Your task to perform on an android device: Open Youtube and go to the subscriptions tab Image 0: 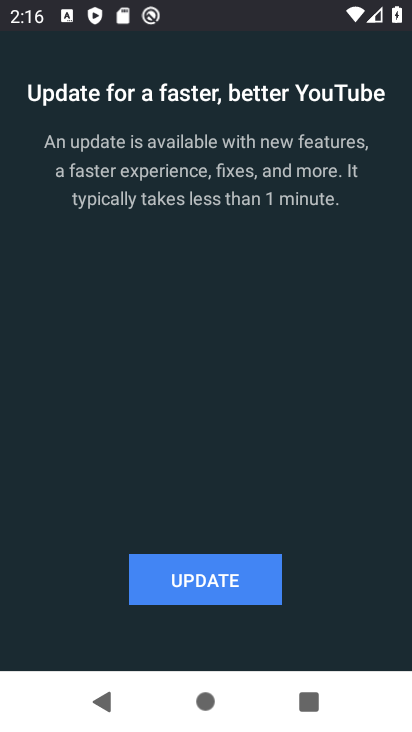
Step 0: press home button
Your task to perform on an android device: Open Youtube and go to the subscriptions tab Image 1: 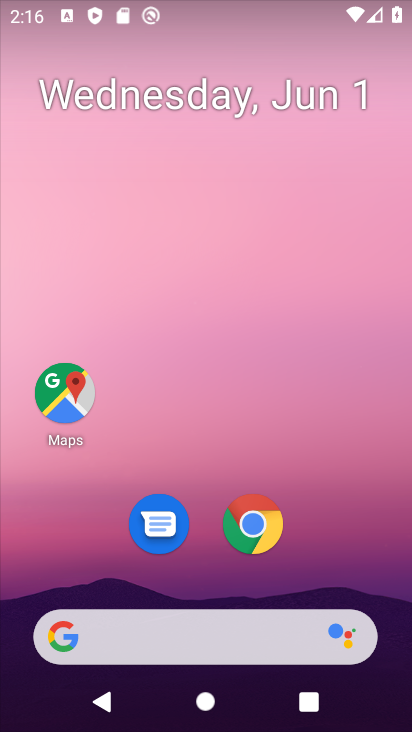
Step 1: drag from (341, 540) to (291, 76)
Your task to perform on an android device: Open Youtube and go to the subscriptions tab Image 2: 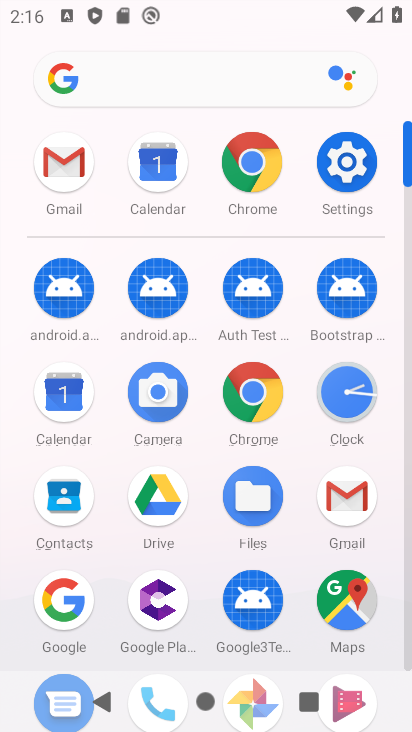
Step 2: drag from (199, 423) to (186, 92)
Your task to perform on an android device: Open Youtube and go to the subscriptions tab Image 3: 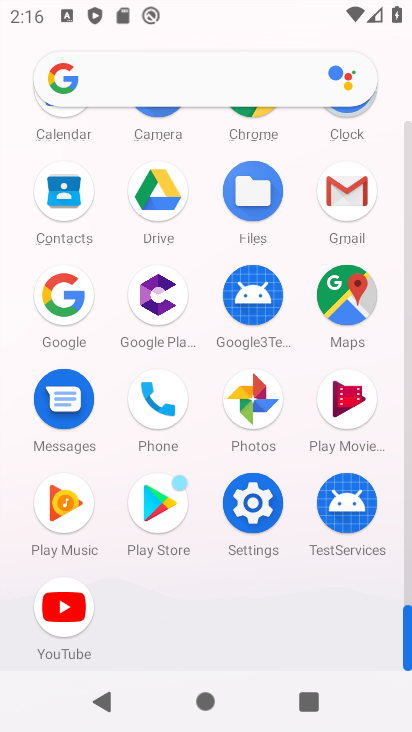
Step 3: click (64, 597)
Your task to perform on an android device: Open Youtube and go to the subscriptions tab Image 4: 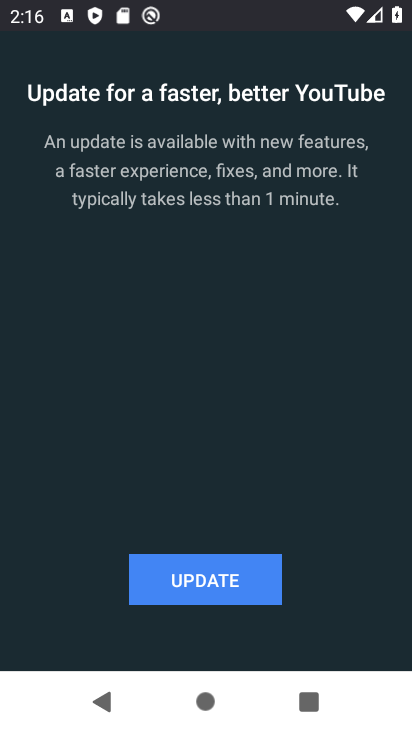
Step 4: click (156, 579)
Your task to perform on an android device: Open Youtube and go to the subscriptions tab Image 5: 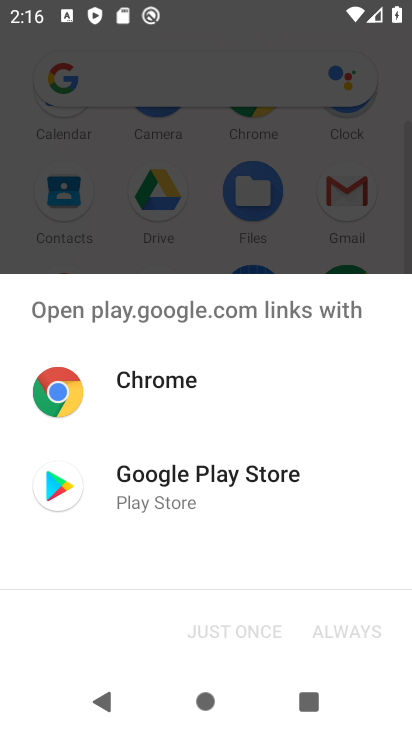
Step 5: click (163, 496)
Your task to perform on an android device: Open Youtube and go to the subscriptions tab Image 6: 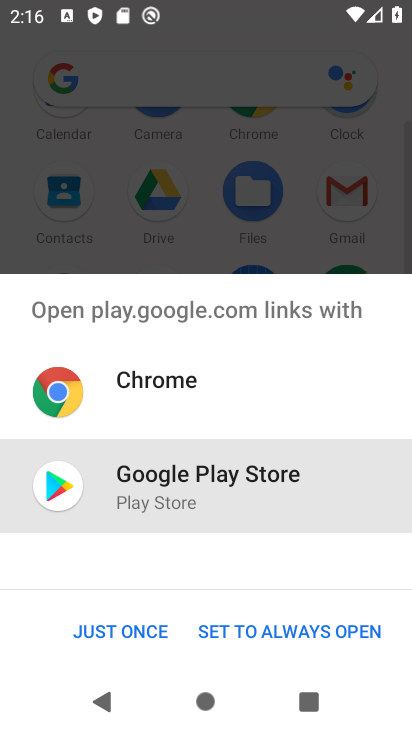
Step 6: click (132, 632)
Your task to perform on an android device: Open Youtube and go to the subscriptions tab Image 7: 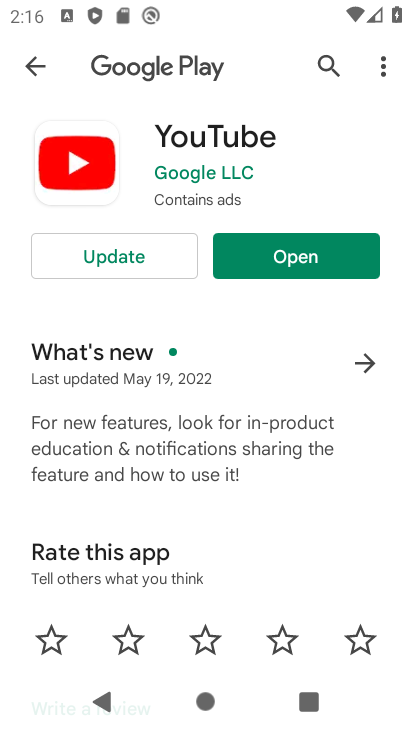
Step 7: click (148, 244)
Your task to perform on an android device: Open Youtube and go to the subscriptions tab Image 8: 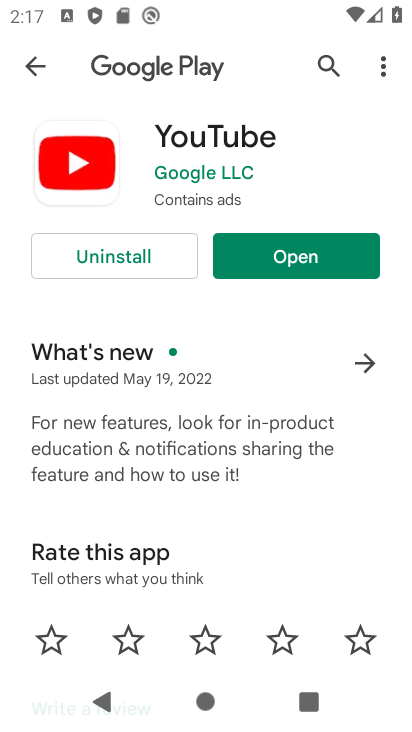
Step 8: click (244, 248)
Your task to perform on an android device: Open Youtube and go to the subscriptions tab Image 9: 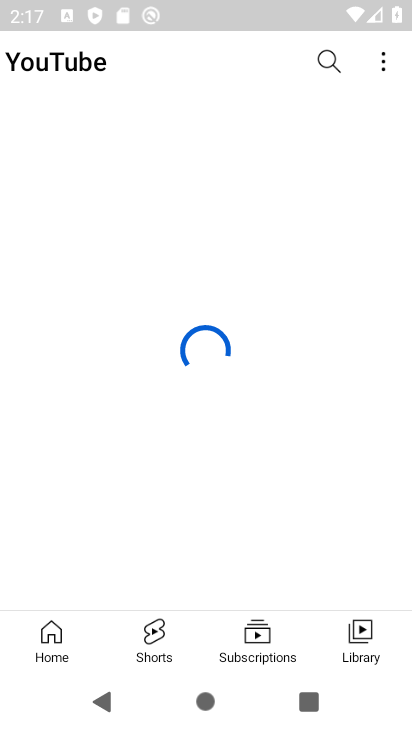
Step 9: click (262, 641)
Your task to perform on an android device: Open Youtube and go to the subscriptions tab Image 10: 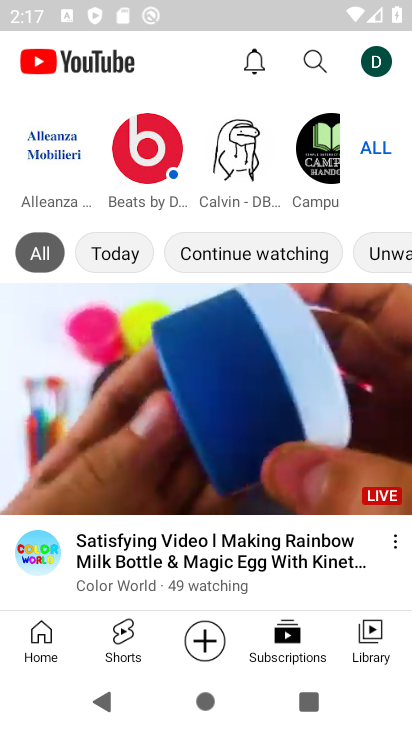
Step 10: task complete